Your task to perform on an android device: Go to settings Image 0: 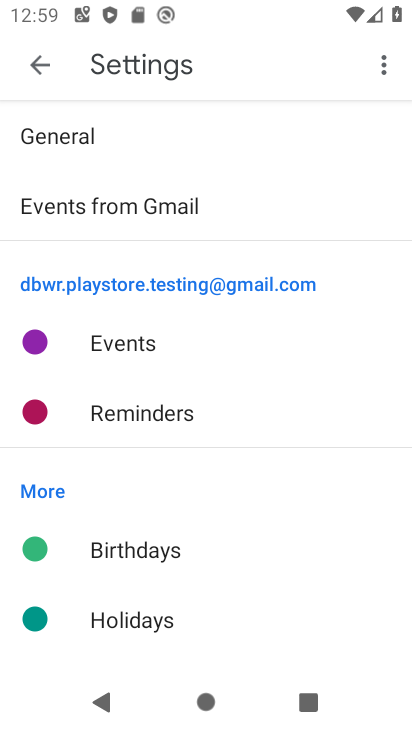
Step 0: press home button
Your task to perform on an android device: Go to settings Image 1: 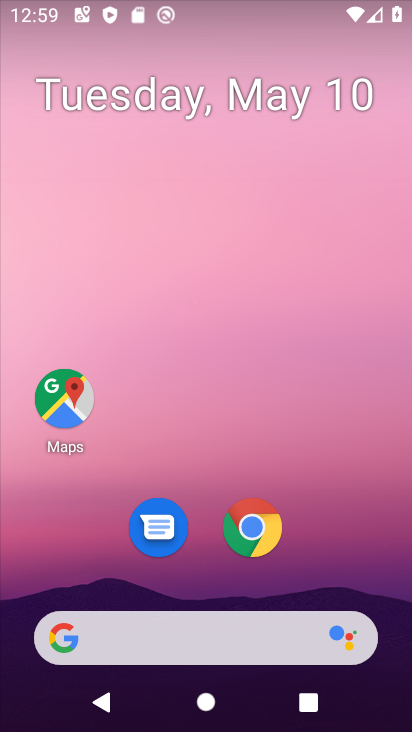
Step 1: drag from (321, 571) to (334, 1)
Your task to perform on an android device: Go to settings Image 2: 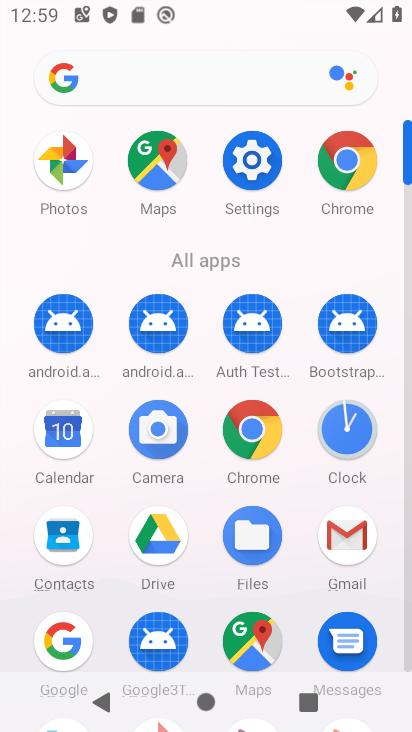
Step 2: click (256, 168)
Your task to perform on an android device: Go to settings Image 3: 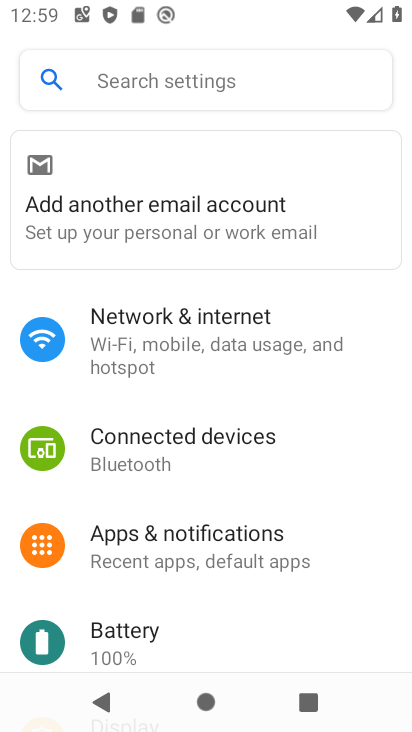
Step 3: task complete